Your task to perform on an android device: Go to wifi settings Image 0: 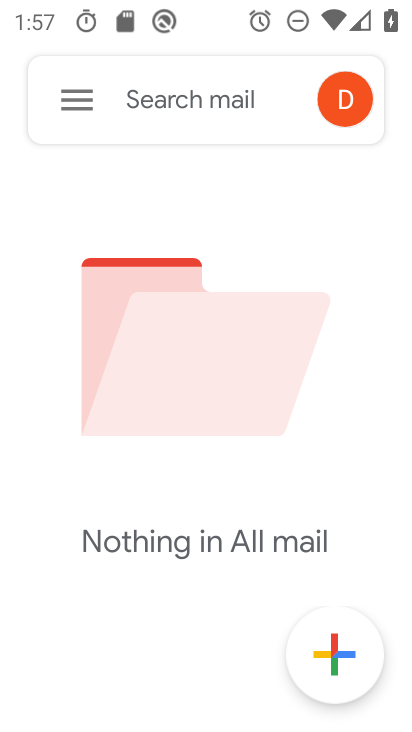
Step 0: press home button
Your task to perform on an android device: Go to wifi settings Image 1: 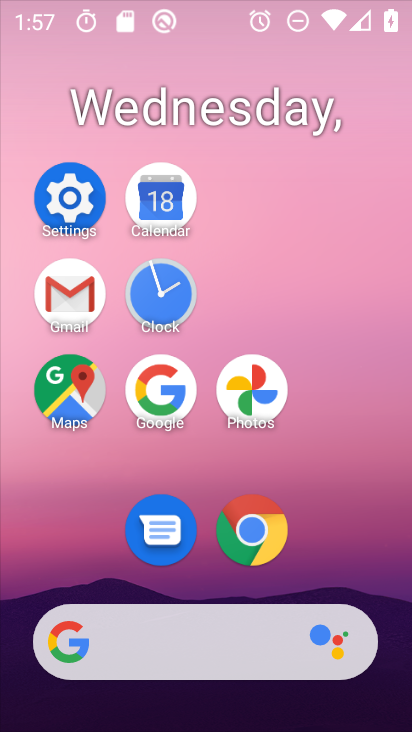
Step 1: click (90, 197)
Your task to perform on an android device: Go to wifi settings Image 2: 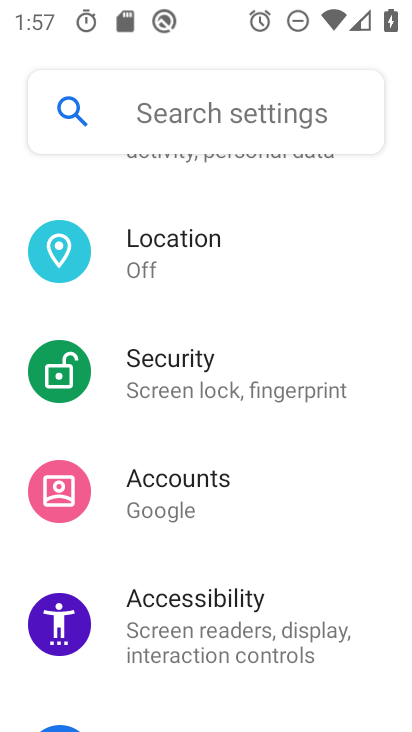
Step 2: drag from (320, 205) to (222, 711)
Your task to perform on an android device: Go to wifi settings Image 3: 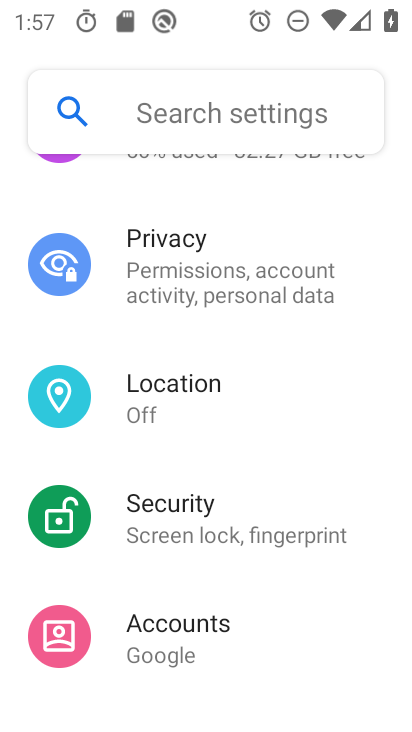
Step 3: drag from (307, 204) to (296, 554)
Your task to perform on an android device: Go to wifi settings Image 4: 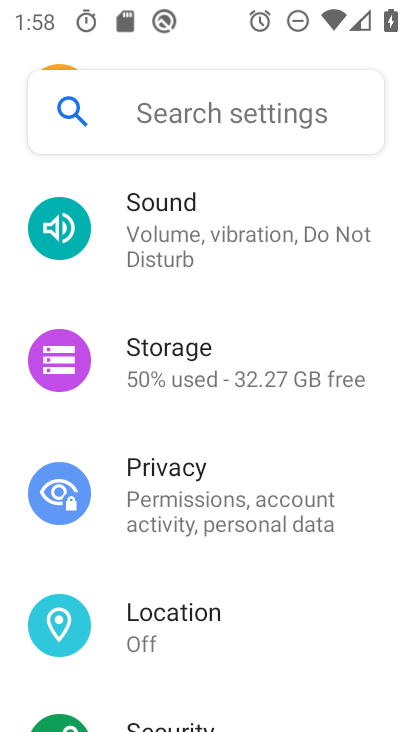
Step 4: drag from (266, 165) to (227, 491)
Your task to perform on an android device: Go to wifi settings Image 5: 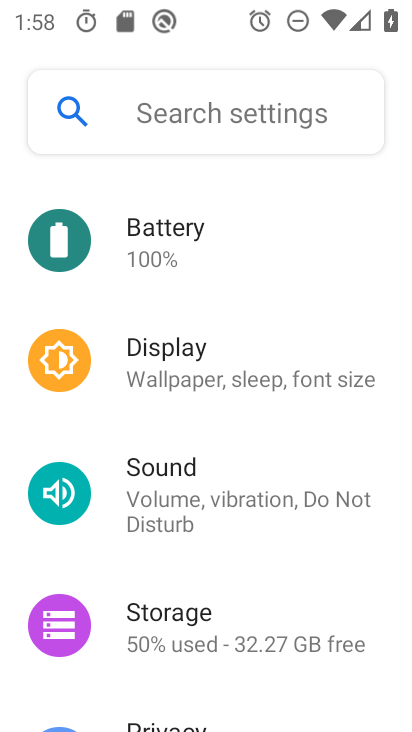
Step 5: drag from (287, 237) to (293, 602)
Your task to perform on an android device: Go to wifi settings Image 6: 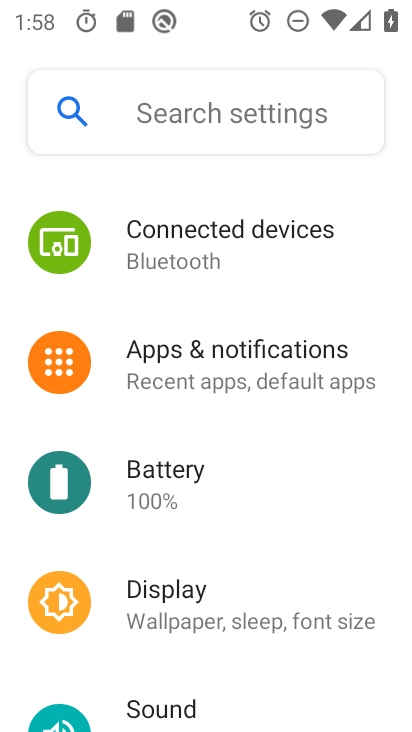
Step 6: drag from (278, 289) to (279, 571)
Your task to perform on an android device: Go to wifi settings Image 7: 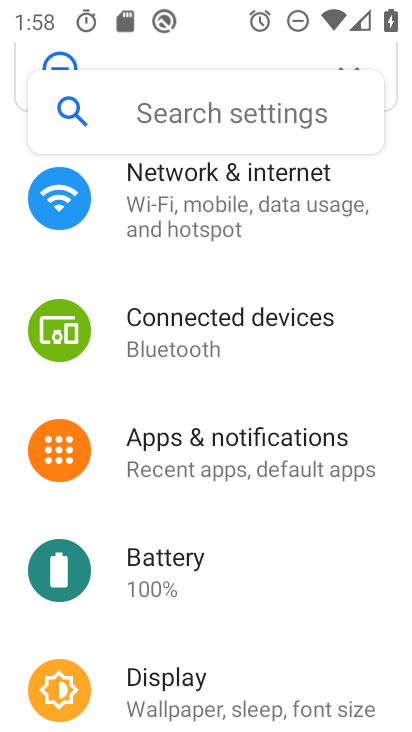
Step 7: click (232, 218)
Your task to perform on an android device: Go to wifi settings Image 8: 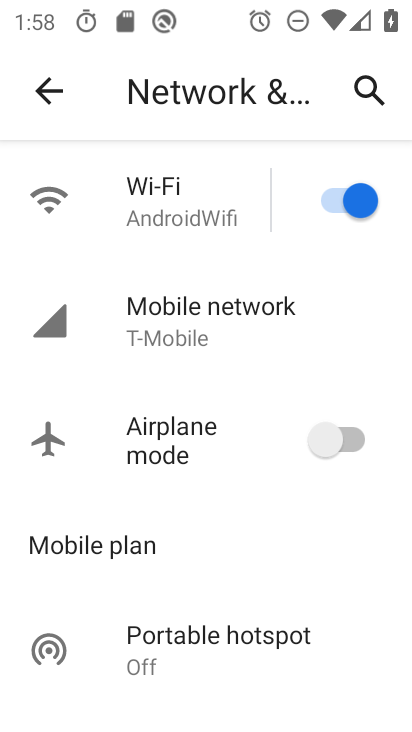
Step 8: click (220, 202)
Your task to perform on an android device: Go to wifi settings Image 9: 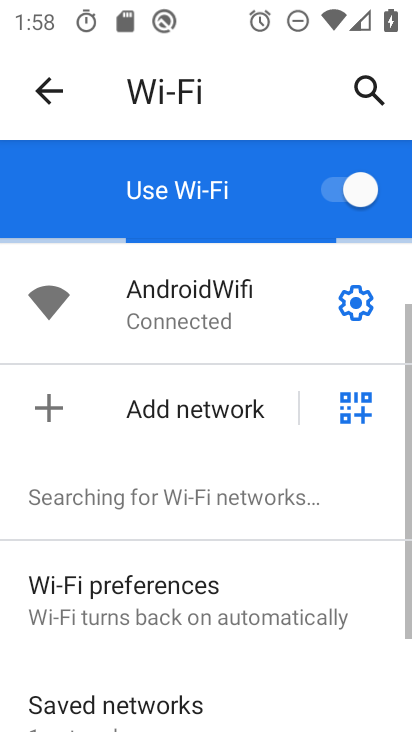
Step 9: click (365, 295)
Your task to perform on an android device: Go to wifi settings Image 10: 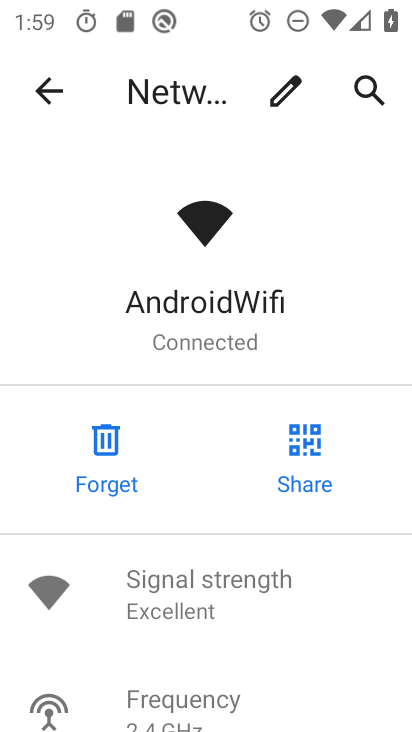
Step 10: task complete